Your task to perform on an android device: turn on the 12-hour format for clock Image 0: 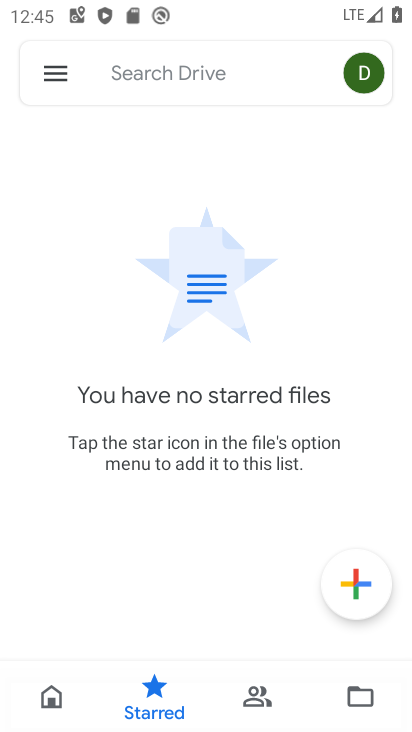
Step 0: press home button
Your task to perform on an android device: turn on the 12-hour format for clock Image 1: 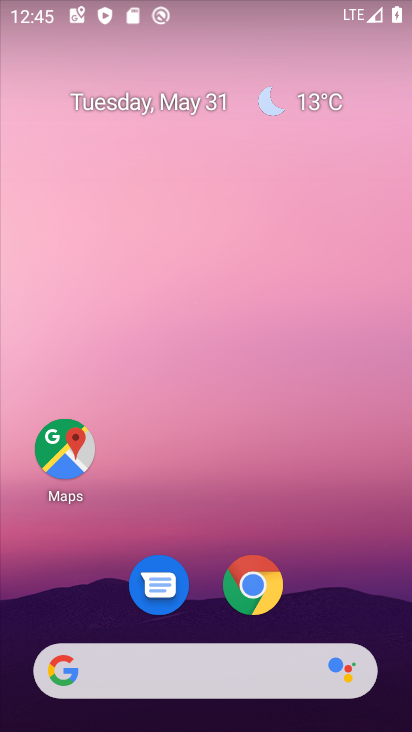
Step 1: drag from (202, 510) to (214, 31)
Your task to perform on an android device: turn on the 12-hour format for clock Image 2: 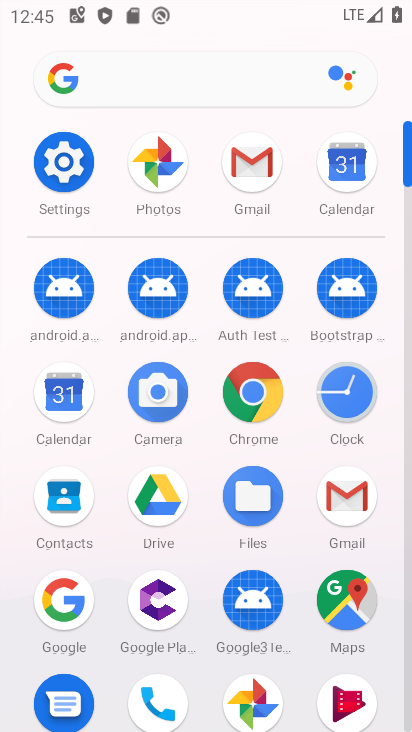
Step 2: click (343, 391)
Your task to perform on an android device: turn on the 12-hour format for clock Image 3: 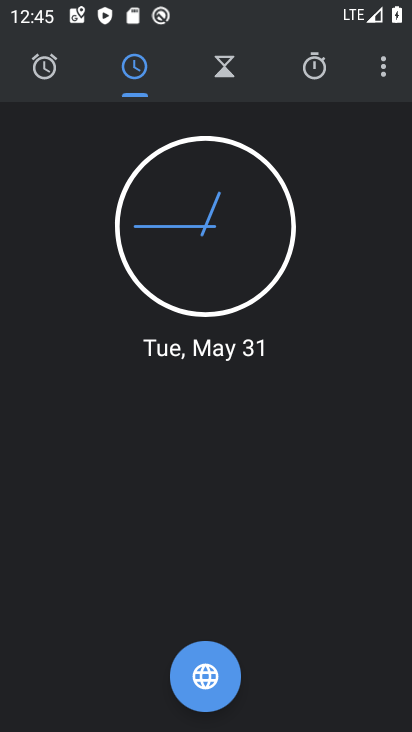
Step 3: click (380, 69)
Your task to perform on an android device: turn on the 12-hour format for clock Image 4: 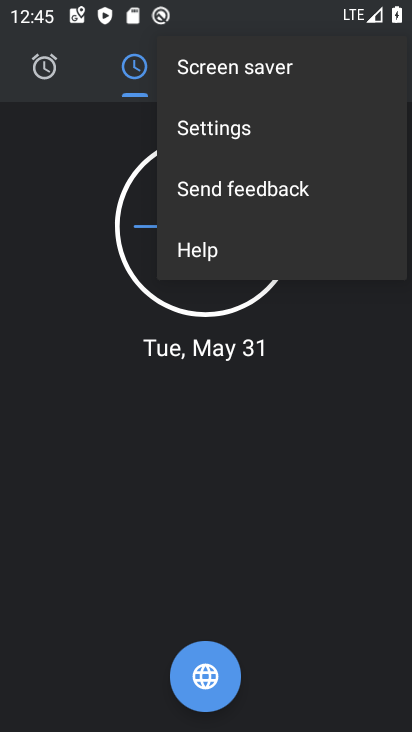
Step 4: click (309, 141)
Your task to perform on an android device: turn on the 12-hour format for clock Image 5: 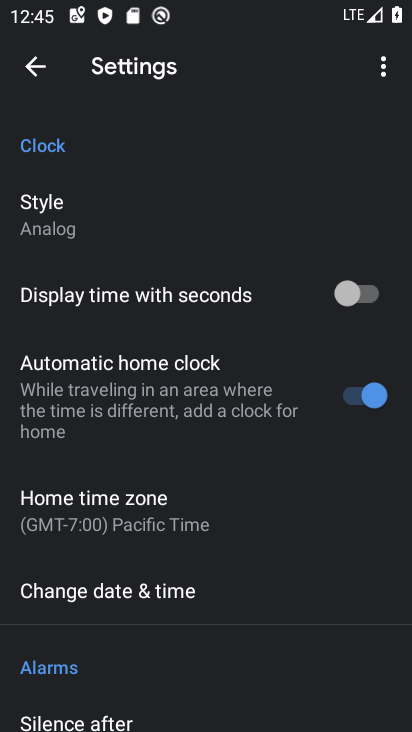
Step 5: click (287, 596)
Your task to perform on an android device: turn on the 12-hour format for clock Image 6: 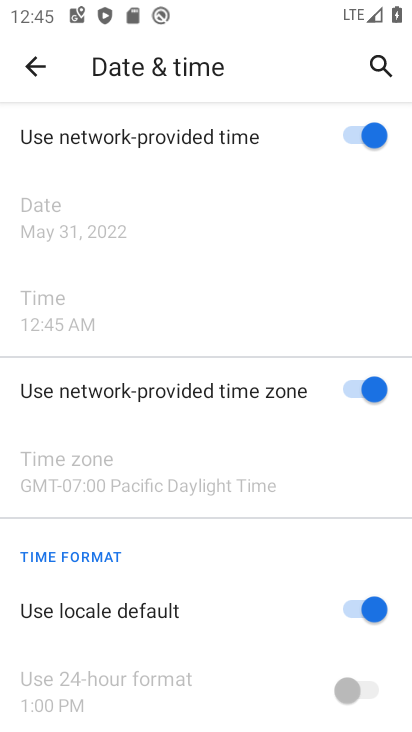
Step 6: task complete